Your task to perform on an android device: Set the phone to "Do not disturb". Image 0: 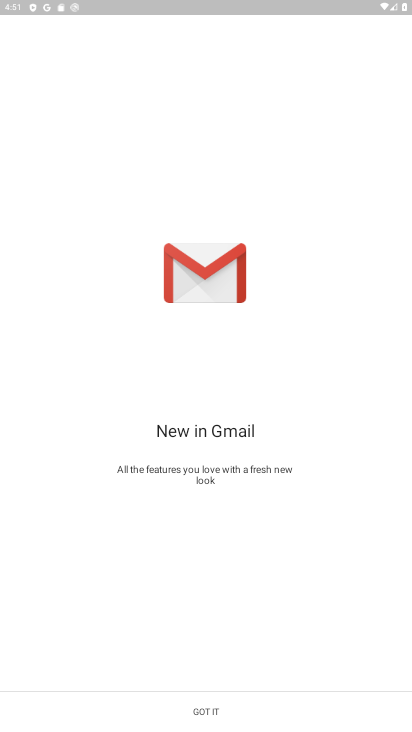
Step 0: press home button
Your task to perform on an android device: Set the phone to "Do not disturb". Image 1: 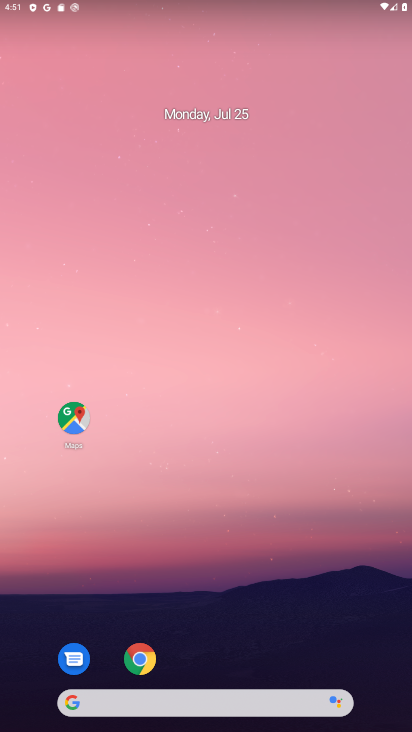
Step 1: drag from (206, 558) to (206, 190)
Your task to perform on an android device: Set the phone to "Do not disturb". Image 2: 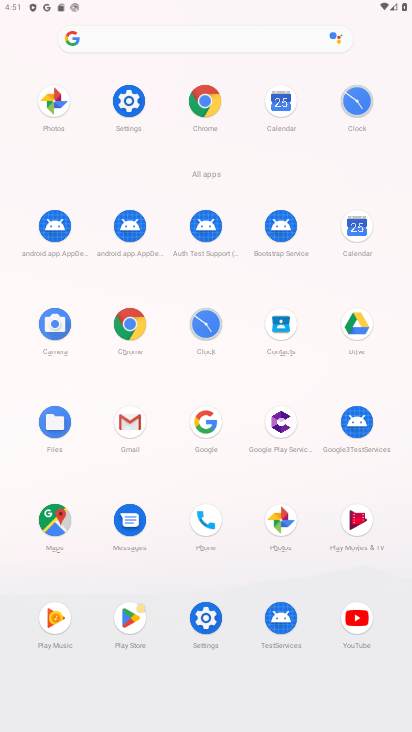
Step 2: click (125, 100)
Your task to perform on an android device: Set the phone to "Do not disturb". Image 3: 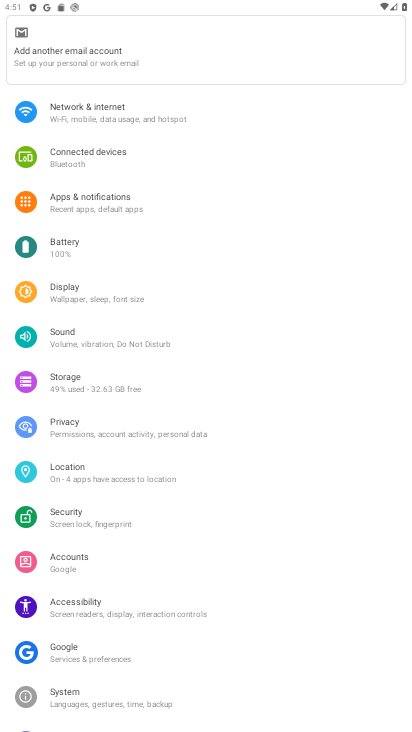
Step 3: click (65, 336)
Your task to perform on an android device: Set the phone to "Do not disturb". Image 4: 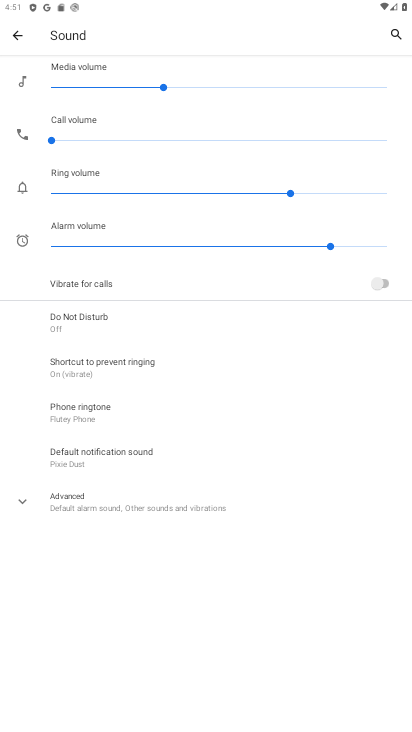
Step 4: click (82, 326)
Your task to perform on an android device: Set the phone to "Do not disturb". Image 5: 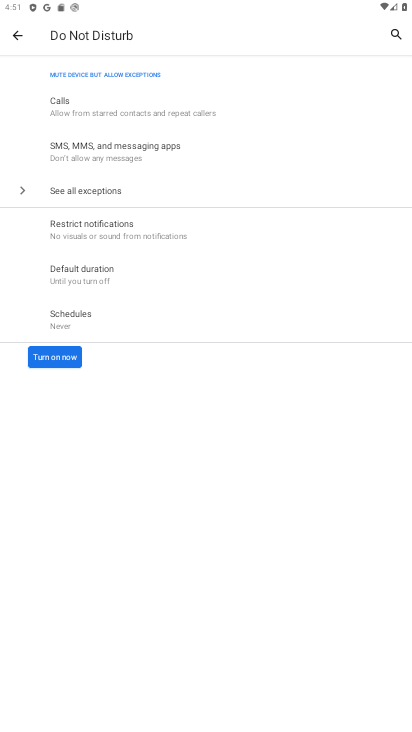
Step 5: click (55, 350)
Your task to perform on an android device: Set the phone to "Do not disturb". Image 6: 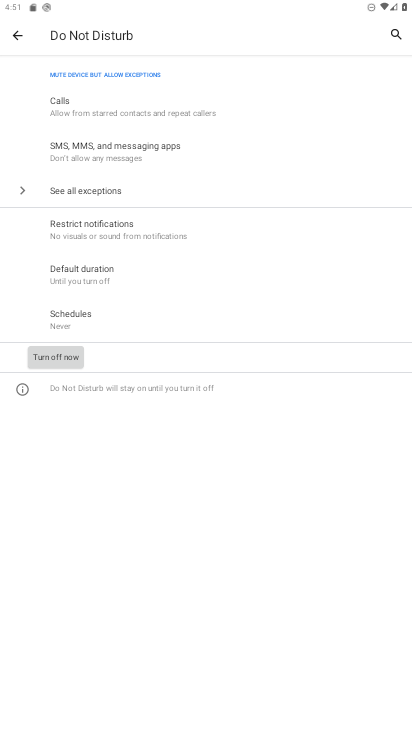
Step 6: task complete